Your task to perform on an android device: add a contact Image 0: 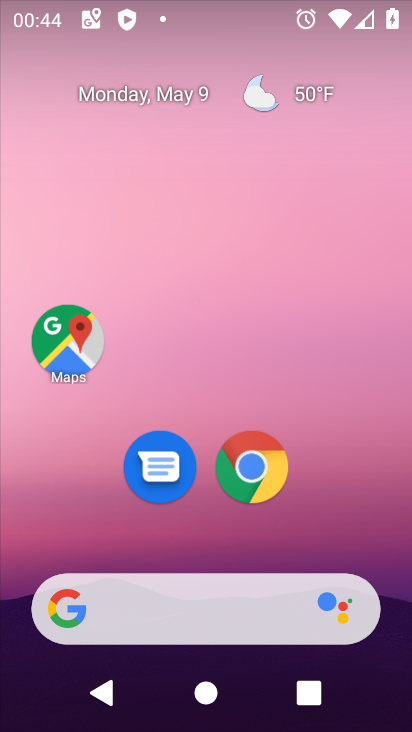
Step 0: drag from (213, 548) to (292, 3)
Your task to perform on an android device: add a contact Image 1: 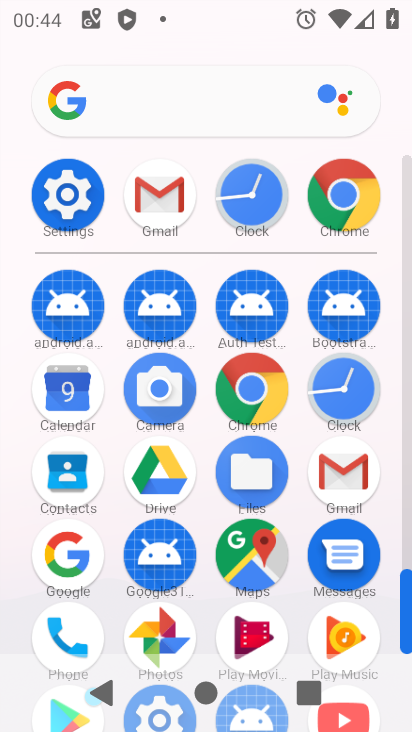
Step 1: click (64, 465)
Your task to perform on an android device: add a contact Image 2: 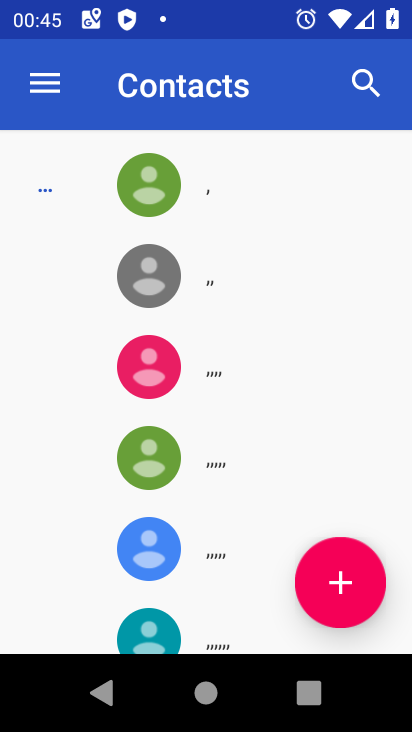
Step 2: click (339, 578)
Your task to perform on an android device: add a contact Image 3: 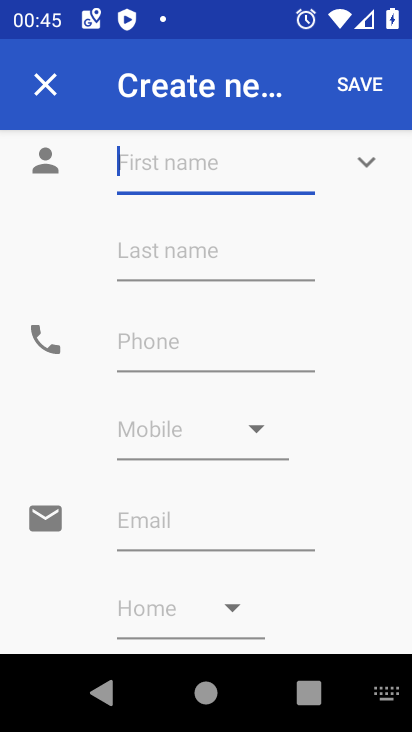
Step 3: type "jgvtcdx"
Your task to perform on an android device: add a contact Image 4: 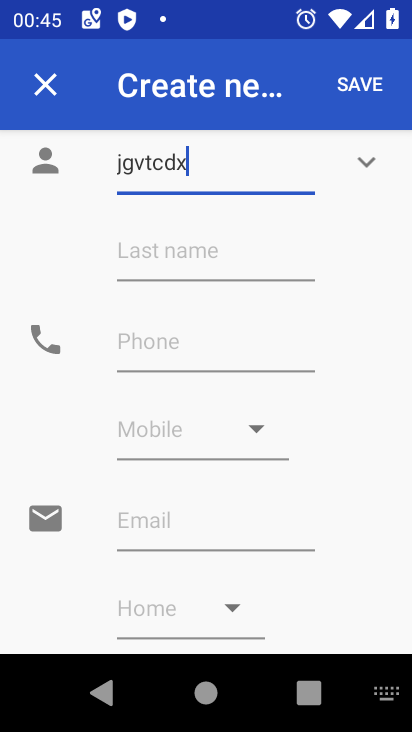
Step 4: click (364, 83)
Your task to perform on an android device: add a contact Image 5: 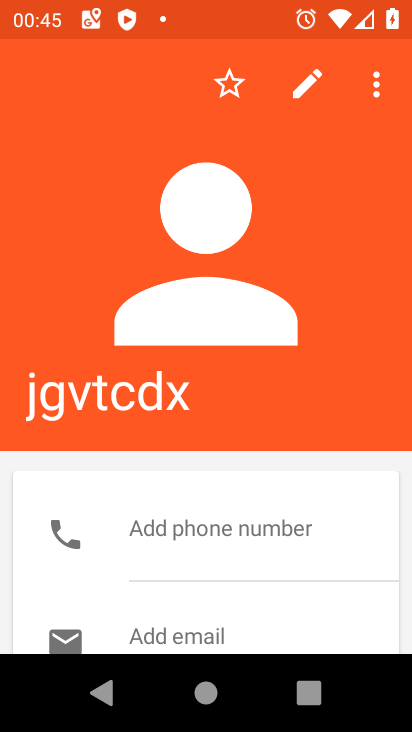
Step 5: press home button
Your task to perform on an android device: add a contact Image 6: 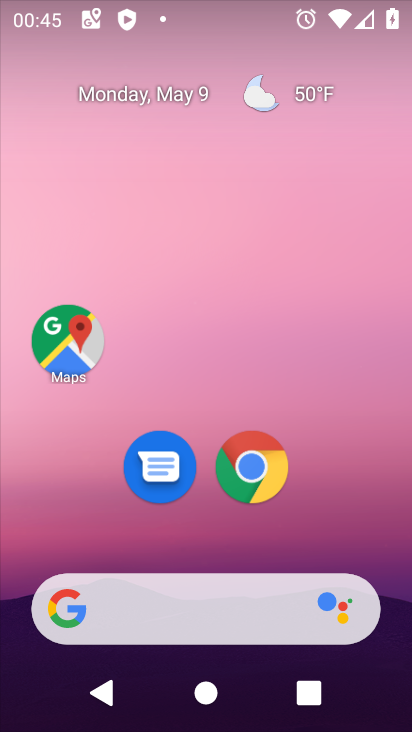
Step 6: drag from (197, 547) to (223, 53)
Your task to perform on an android device: add a contact Image 7: 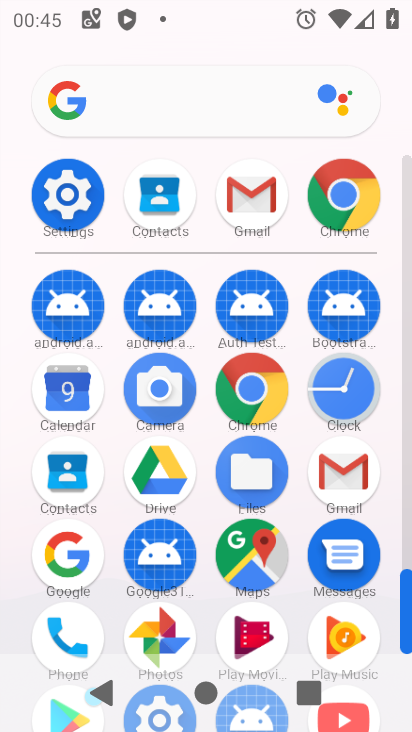
Step 7: click (70, 467)
Your task to perform on an android device: add a contact Image 8: 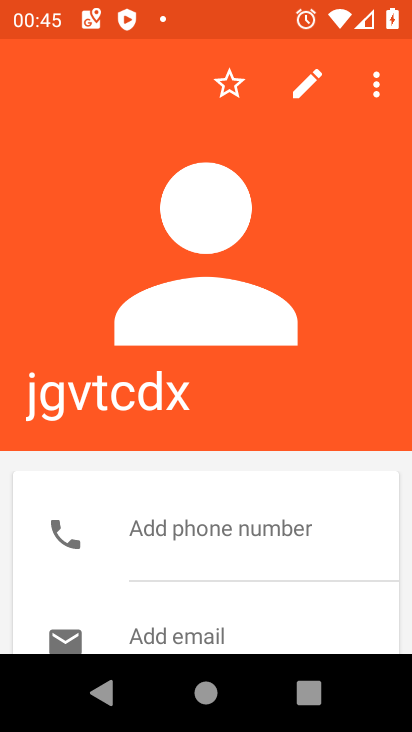
Step 8: task complete